Your task to perform on an android device: turn pop-ups off in chrome Image 0: 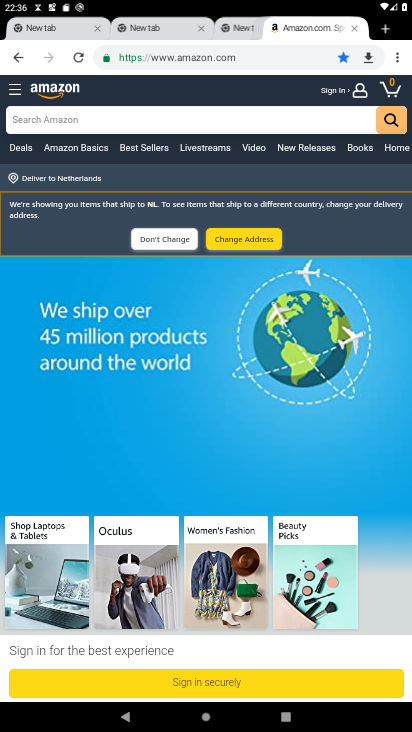
Step 0: click (394, 53)
Your task to perform on an android device: turn pop-ups off in chrome Image 1: 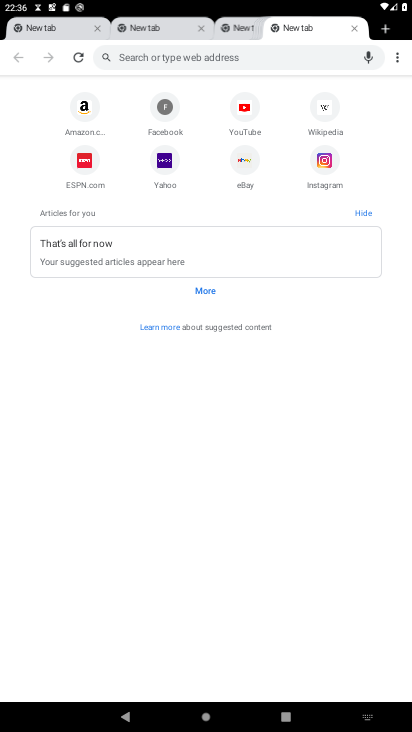
Step 1: click (403, 57)
Your task to perform on an android device: turn pop-ups off in chrome Image 2: 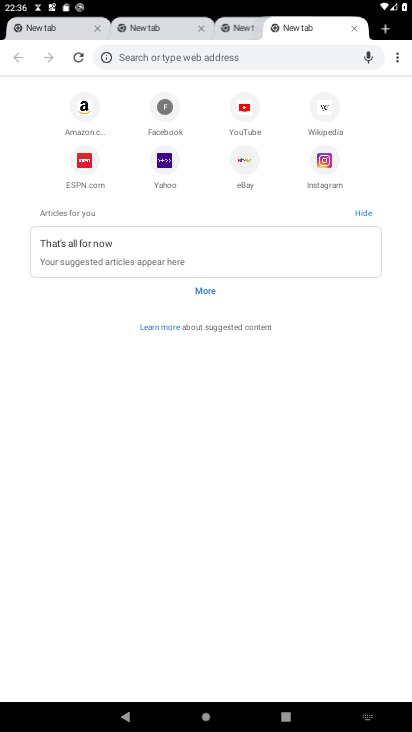
Step 2: click (403, 57)
Your task to perform on an android device: turn pop-ups off in chrome Image 3: 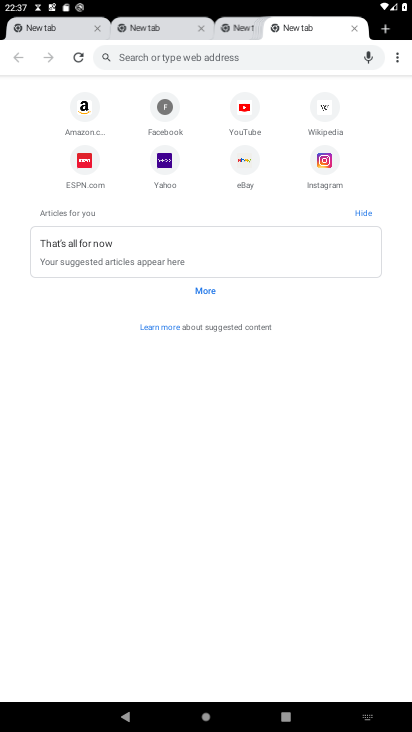
Step 3: click (403, 57)
Your task to perform on an android device: turn pop-ups off in chrome Image 4: 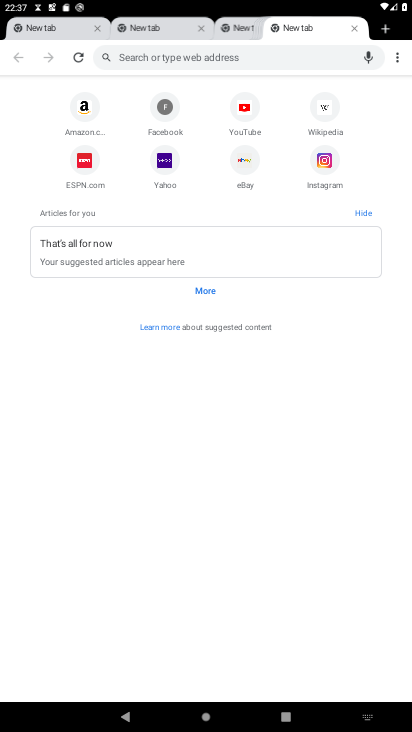
Step 4: click (403, 57)
Your task to perform on an android device: turn pop-ups off in chrome Image 5: 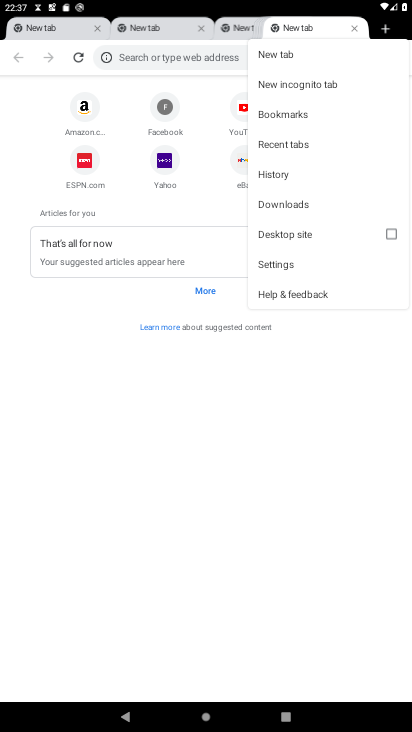
Step 5: click (296, 267)
Your task to perform on an android device: turn pop-ups off in chrome Image 6: 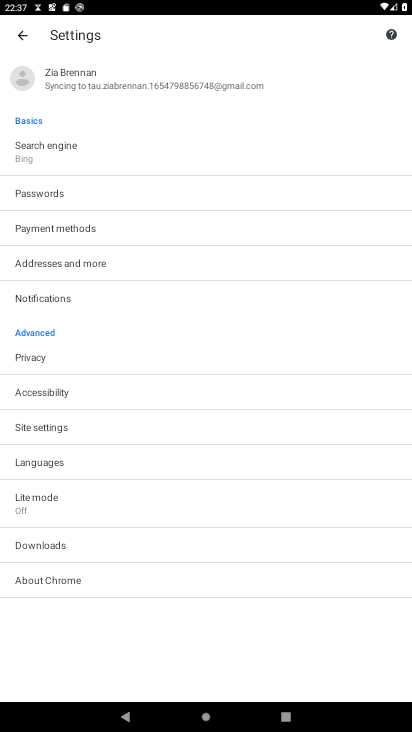
Step 6: click (77, 419)
Your task to perform on an android device: turn pop-ups off in chrome Image 7: 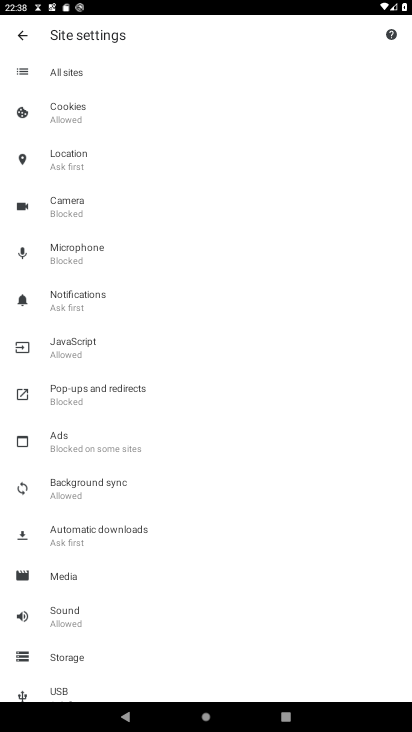
Step 7: click (96, 394)
Your task to perform on an android device: turn pop-ups off in chrome Image 8: 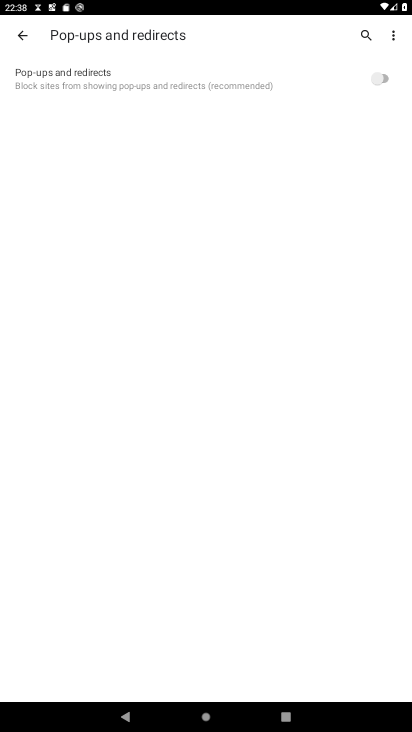
Step 8: task complete